Your task to perform on an android device: toggle show notifications on the lock screen Image 0: 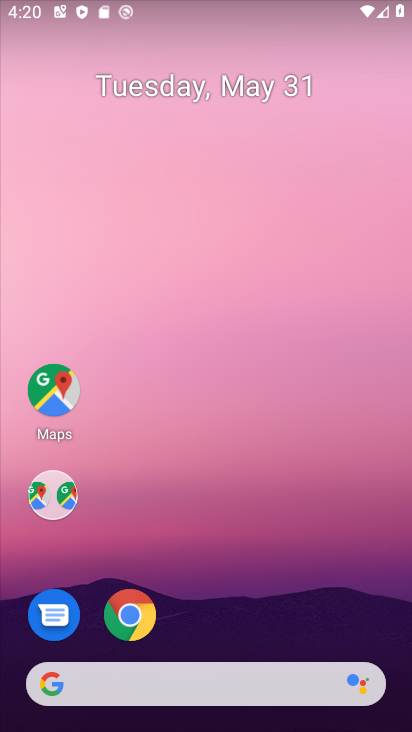
Step 0: click (170, 32)
Your task to perform on an android device: toggle show notifications on the lock screen Image 1: 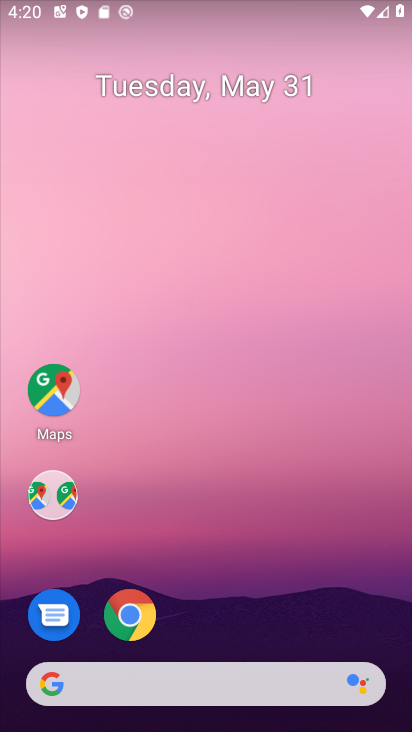
Step 1: drag from (227, 569) to (160, 90)
Your task to perform on an android device: toggle show notifications on the lock screen Image 2: 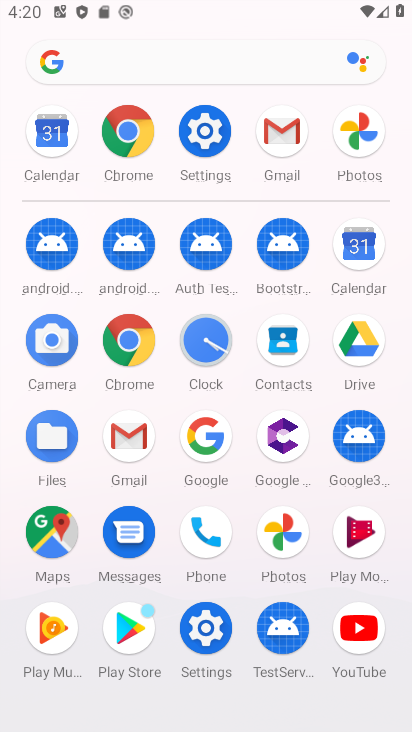
Step 2: click (216, 143)
Your task to perform on an android device: toggle show notifications on the lock screen Image 3: 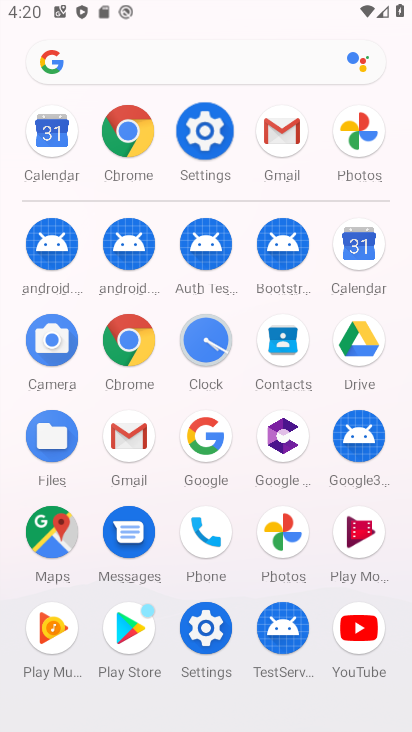
Step 3: click (216, 142)
Your task to perform on an android device: toggle show notifications on the lock screen Image 4: 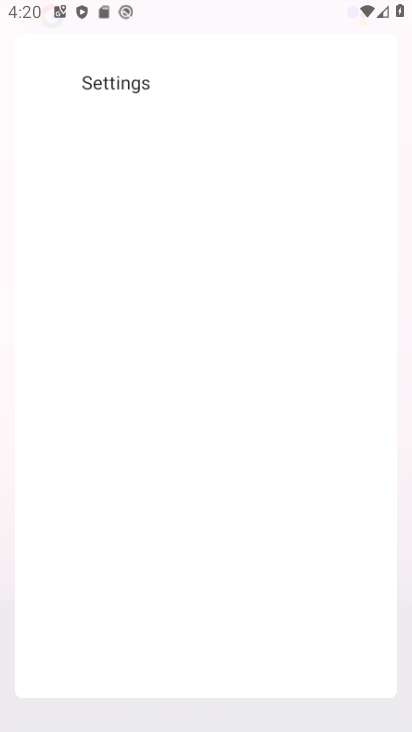
Step 4: click (216, 142)
Your task to perform on an android device: toggle show notifications on the lock screen Image 5: 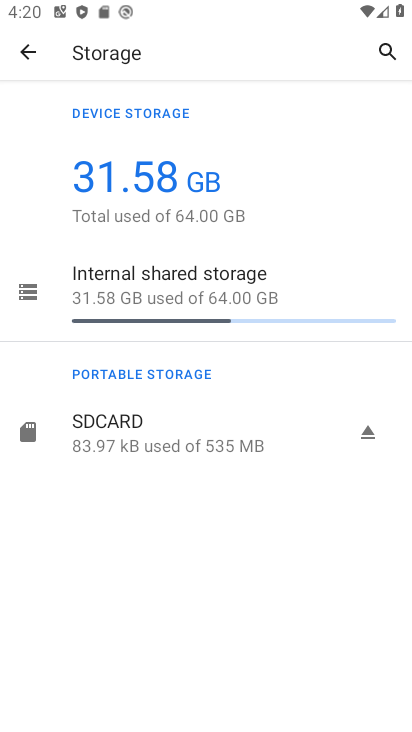
Step 5: click (32, 51)
Your task to perform on an android device: toggle show notifications on the lock screen Image 6: 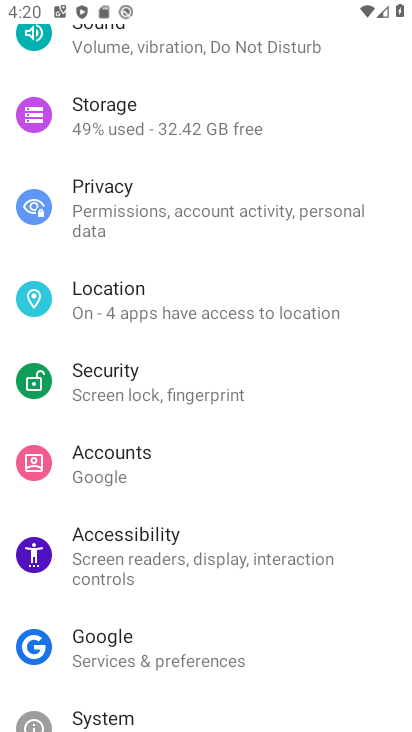
Step 6: drag from (109, 205) to (119, 472)
Your task to perform on an android device: toggle show notifications on the lock screen Image 7: 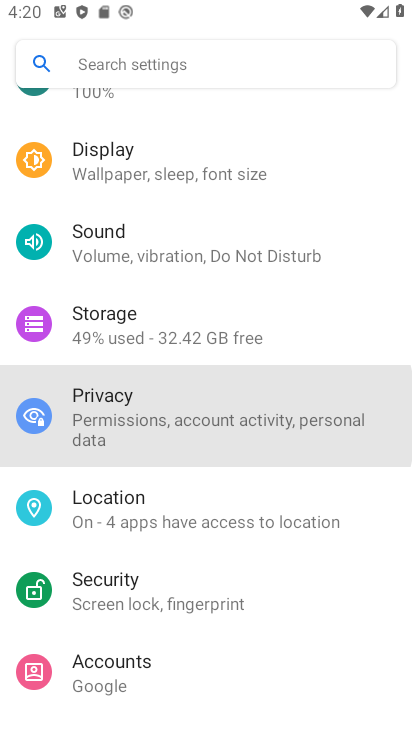
Step 7: drag from (115, 208) to (151, 508)
Your task to perform on an android device: toggle show notifications on the lock screen Image 8: 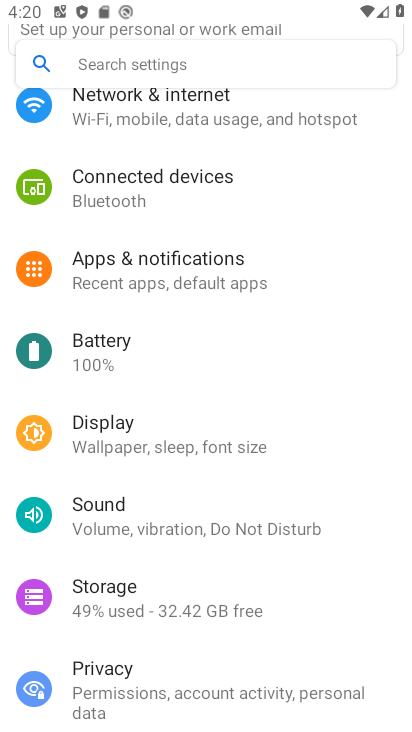
Step 8: click (147, 283)
Your task to perform on an android device: toggle show notifications on the lock screen Image 9: 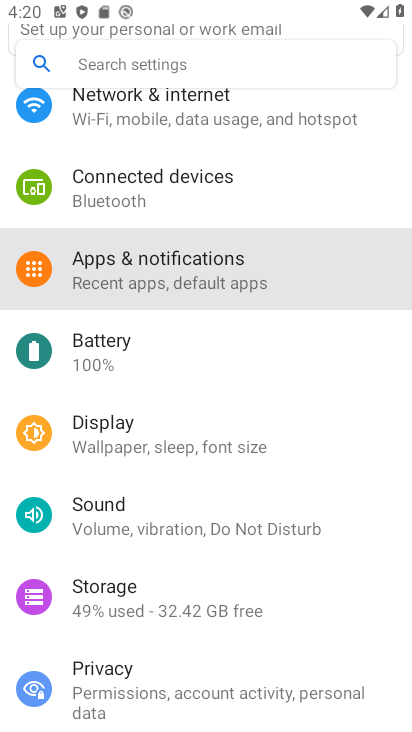
Step 9: click (147, 281)
Your task to perform on an android device: toggle show notifications on the lock screen Image 10: 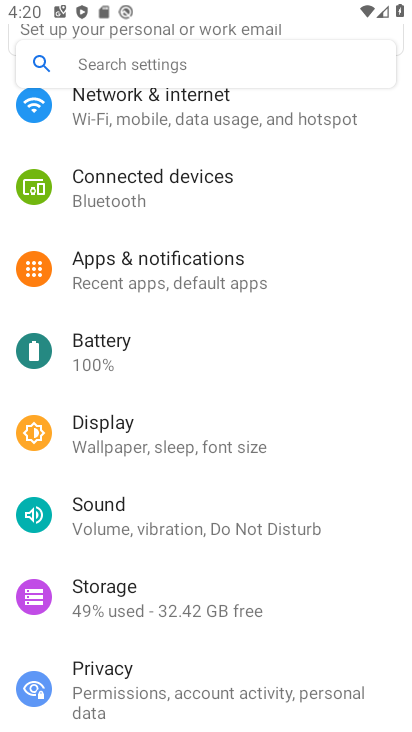
Step 10: click (150, 280)
Your task to perform on an android device: toggle show notifications on the lock screen Image 11: 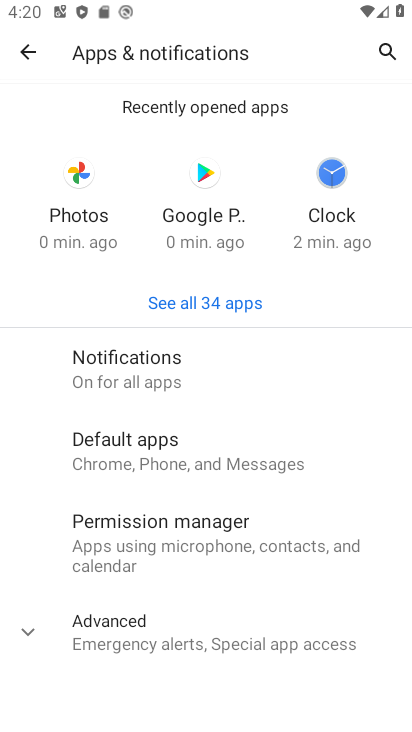
Step 11: click (117, 381)
Your task to perform on an android device: toggle show notifications on the lock screen Image 12: 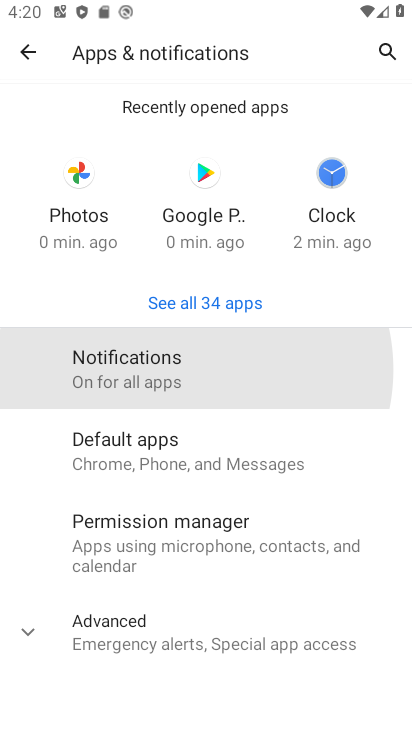
Step 12: click (117, 381)
Your task to perform on an android device: toggle show notifications on the lock screen Image 13: 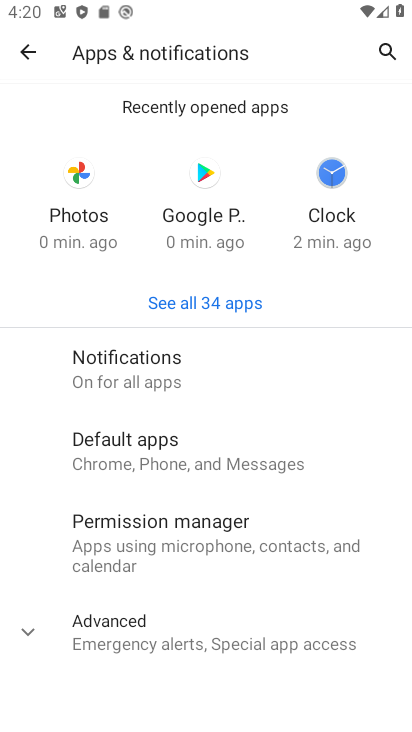
Step 13: click (117, 381)
Your task to perform on an android device: toggle show notifications on the lock screen Image 14: 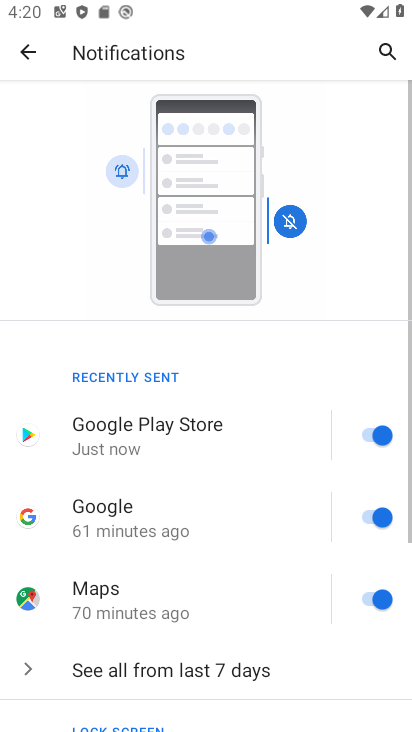
Step 14: drag from (176, 536) to (116, 172)
Your task to perform on an android device: toggle show notifications on the lock screen Image 15: 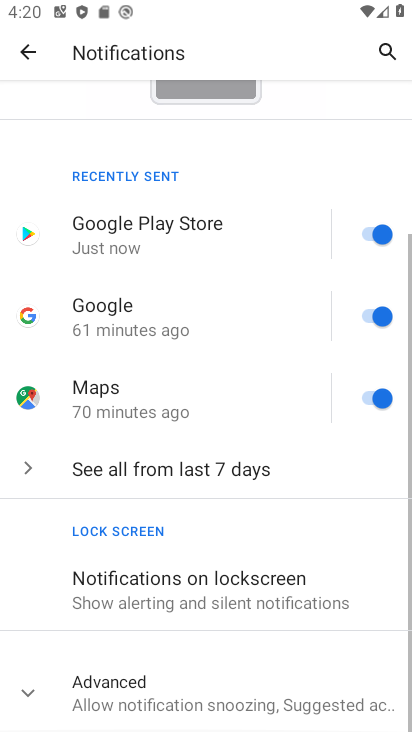
Step 15: drag from (171, 498) to (170, 200)
Your task to perform on an android device: toggle show notifications on the lock screen Image 16: 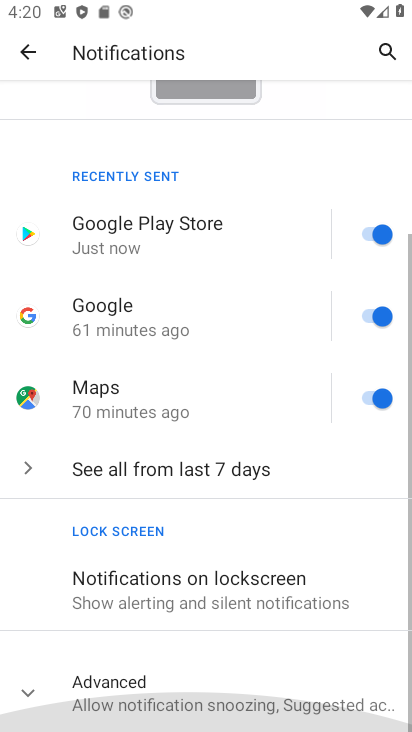
Step 16: drag from (191, 420) to (174, 162)
Your task to perform on an android device: toggle show notifications on the lock screen Image 17: 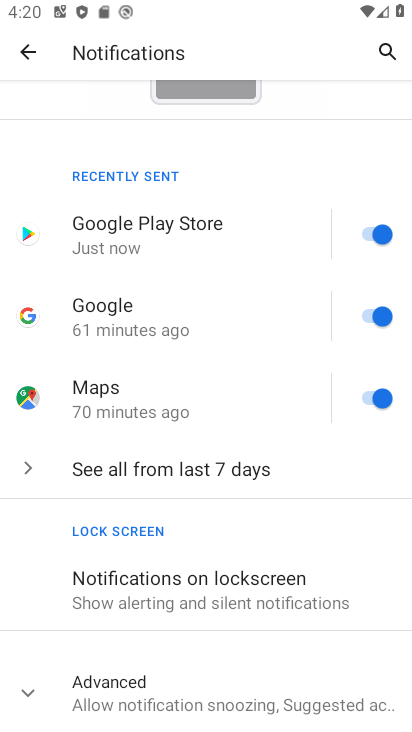
Step 17: click (227, 574)
Your task to perform on an android device: toggle show notifications on the lock screen Image 18: 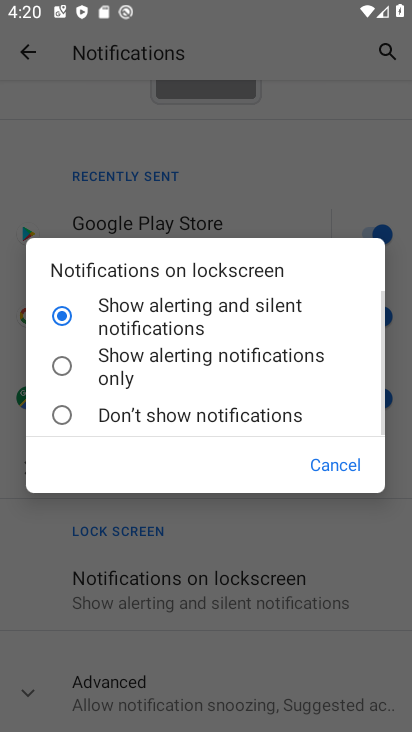
Step 18: click (333, 465)
Your task to perform on an android device: toggle show notifications on the lock screen Image 19: 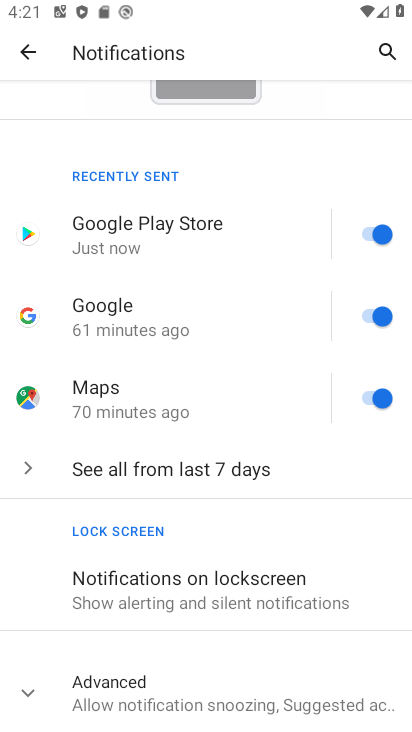
Step 19: task complete